Your task to perform on an android device: Open internet settings Image 0: 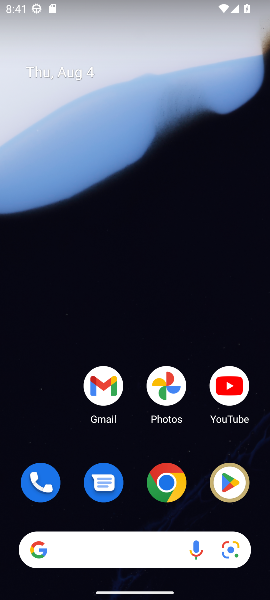
Step 0: drag from (138, 443) to (164, 61)
Your task to perform on an android device: Open internet settings Image 1: 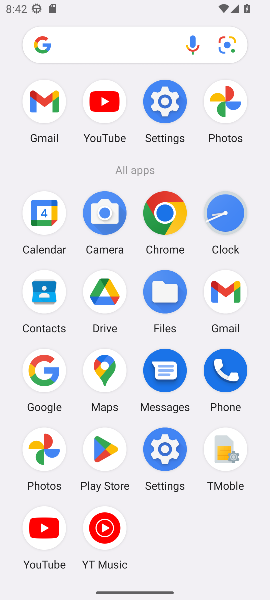
Step 1: click (162, 96)
Your task to perform on an android device: Open internet settings Image 2: 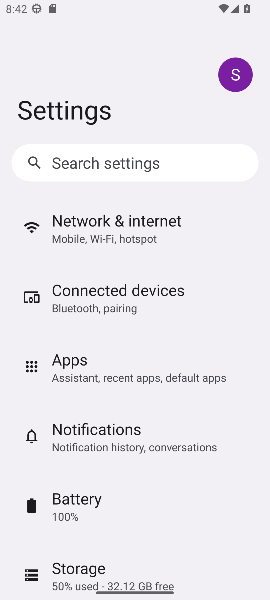
Step 2: click (96, 233)
Your task to perform on an android device: Open internet settings Image 3: 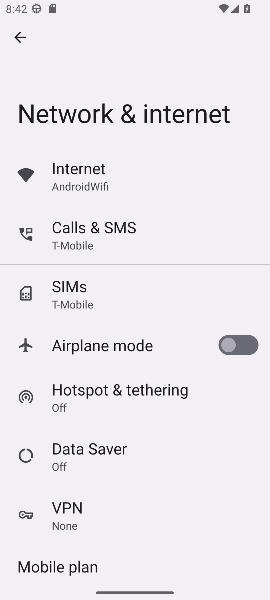
Step 3: click (104, 182)
Your task to perform on an android device: Open internet settings Image 4: 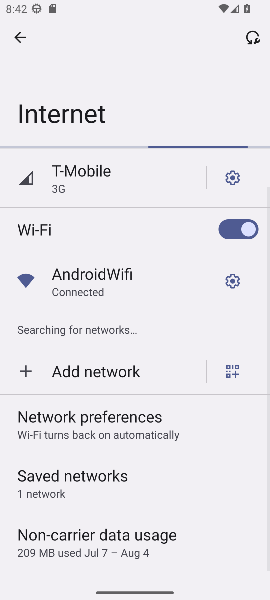
Step 4: task complete